Your task to perform on an android device: Open Yahoo.com Image 0: 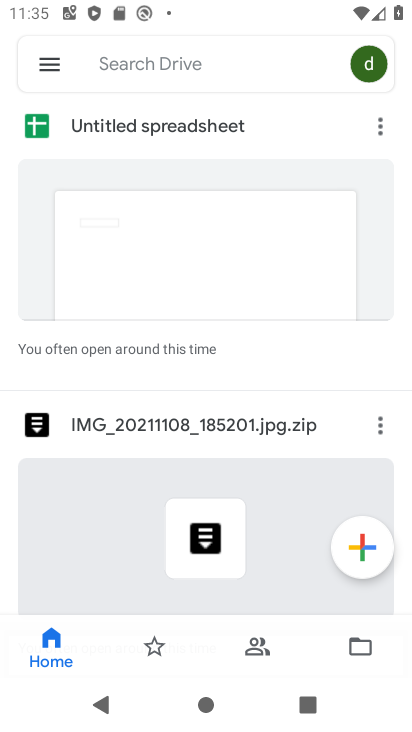
Step 0: press home button
Your task to perform on an android device: Open Yahoo.com Image 1: 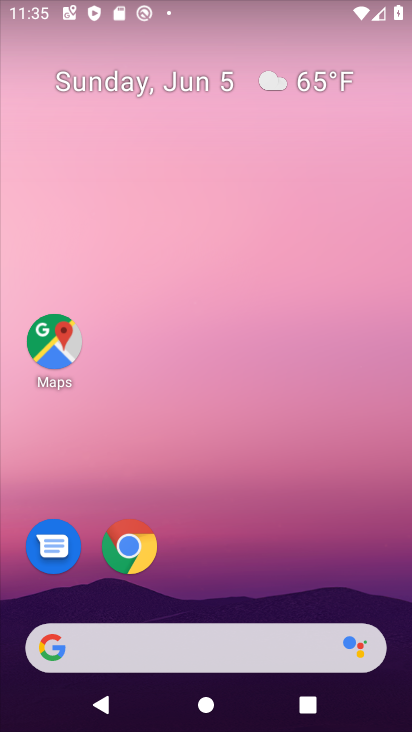
Step 1: click (132, 549)
Your task to perform on an android device: Open Yahoo.com Image 2: 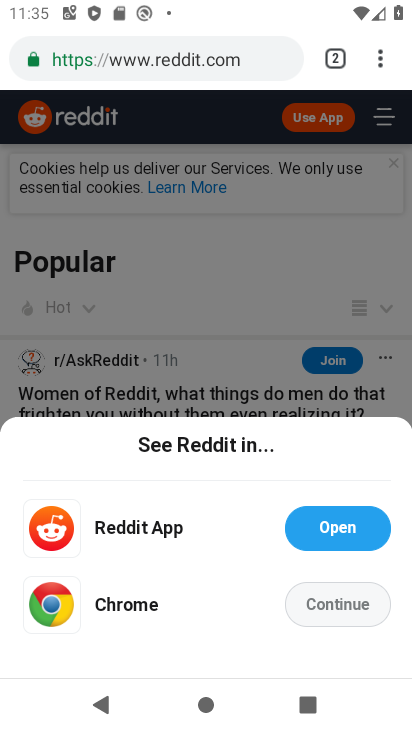
Step 2: click (335, 54)
Your task to perform on an android device: Open Yahoo.com Image 3: 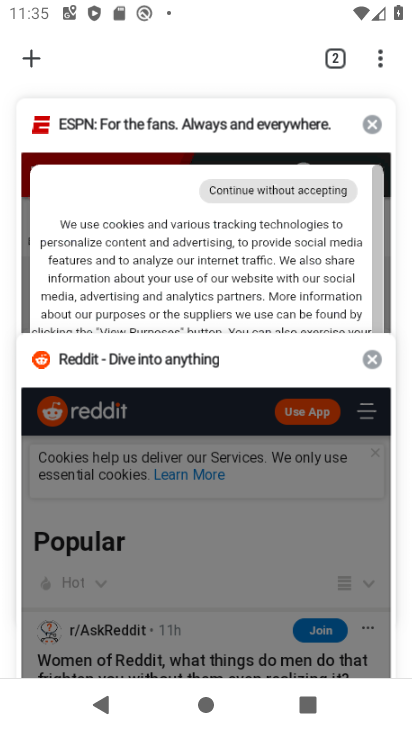
Step 3: click (367, 359)
Your task to perform on an android device: Open Yahoo.com Image 4: 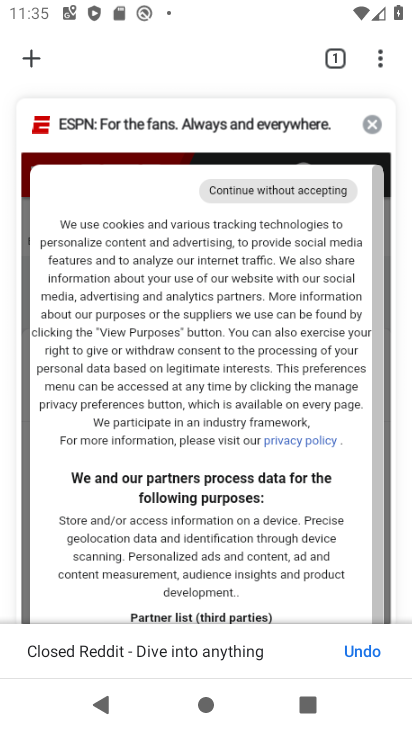
Step 4: click (371, 124)
Your task to perform on an android device: Open Yahoo.com Image 5: 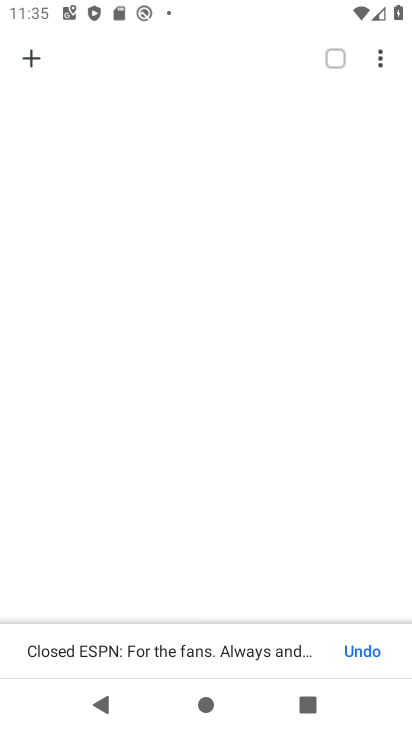
Step 5: click (38, 55)
Your task to perform on an android device: Open Yahoo.com Image 6: 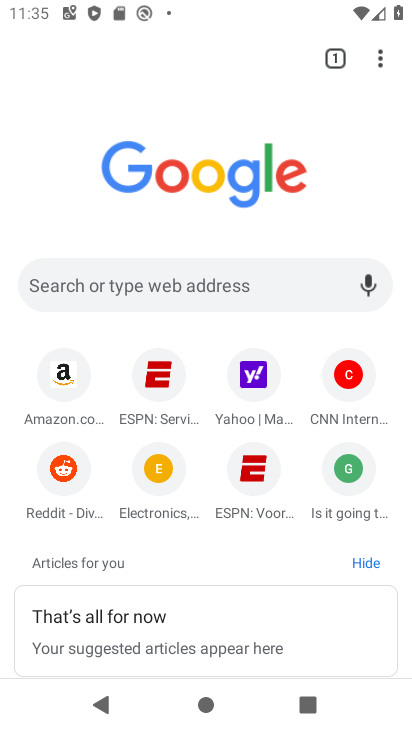
Step 6: click (251, 394)
Your task to perform on an android device: Open Yahoo.com Image 7: 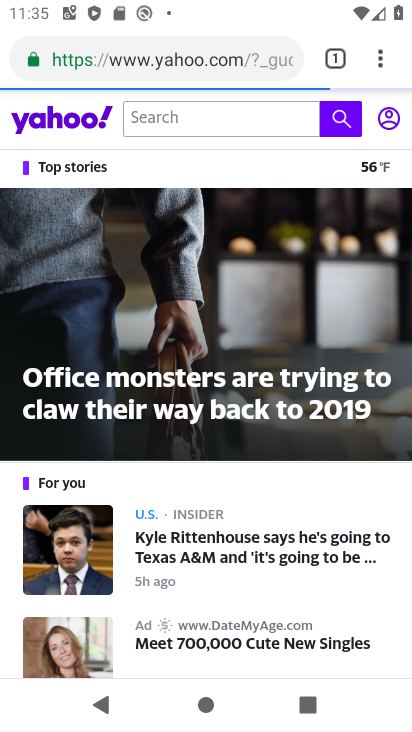
Step 7: task complete